Your task to perform on an android device: change the clock display to show seconds Image 0: 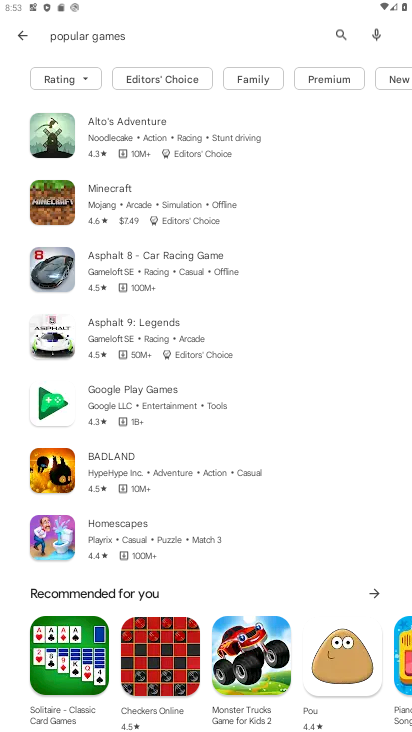
Step 0: press home button
Your task to perform on an android device: change the clock display to show seconds Image 1: 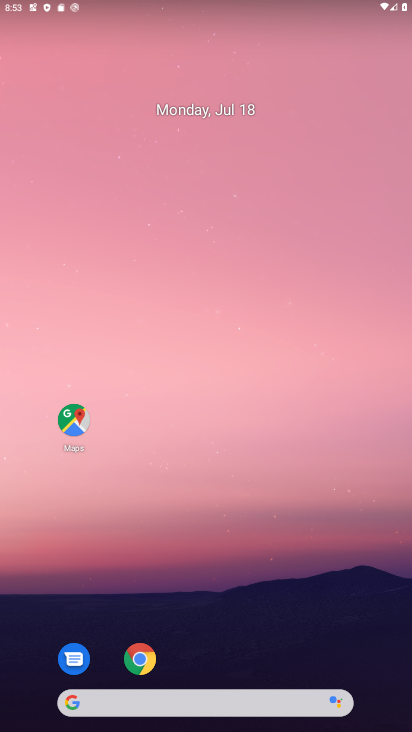
Step 1: drag from (249, 597) to (284, 0)
Your task to perform on an android device: change the clock display to show seconds Image 2: 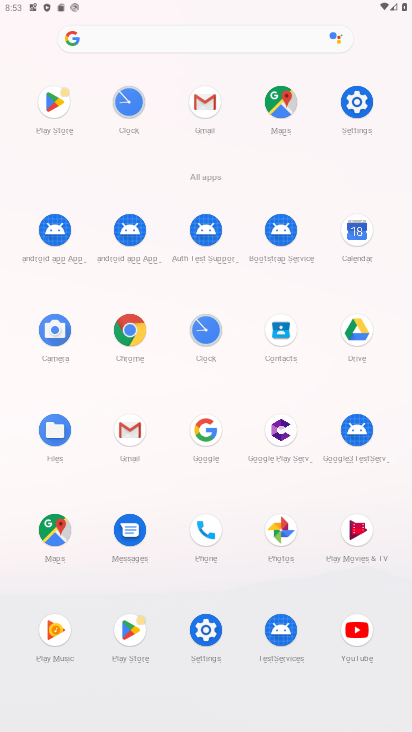
Step 2: click (124, 103)
Your task to perform on an android device: change the clock display to show seconds Image 3: 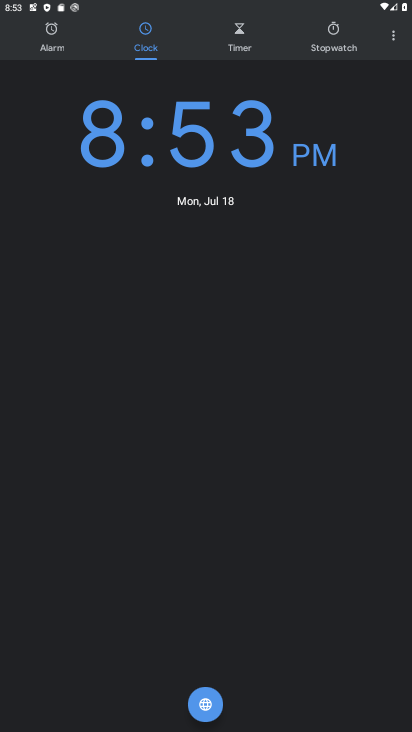
Step 3: click (392, 28)
Your task to perform on an android device: change the clock display to show seconds Image 4: 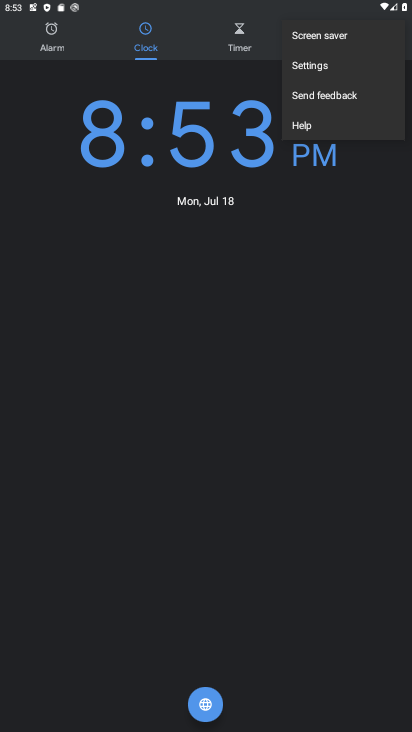
Step 4: click (293, 67)
Your task to perform on an android device: change the clock display to show seconds Image 5: 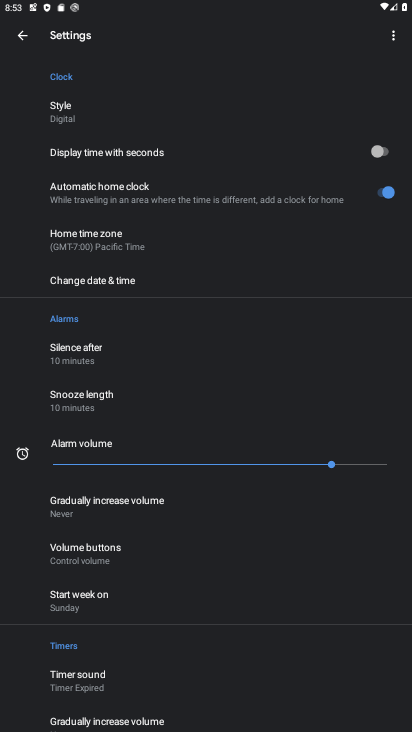
Step 5: click (382, 152)
Your task to perform on an android device: change the clock display to show seconds Image 6: 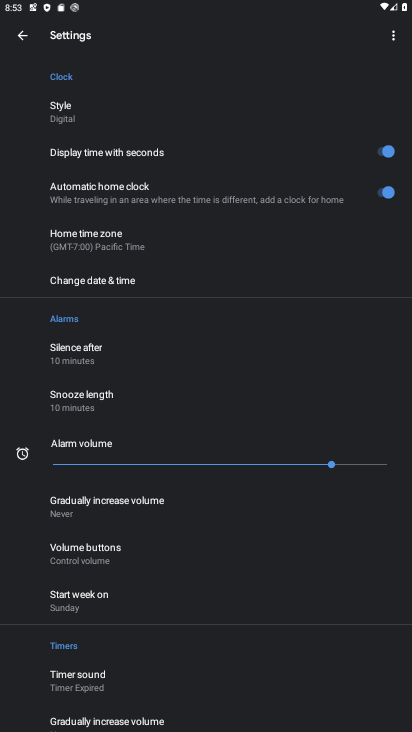
Step 6: task complete